Your task to perform on an android device: Go to CNN.com Image 0: 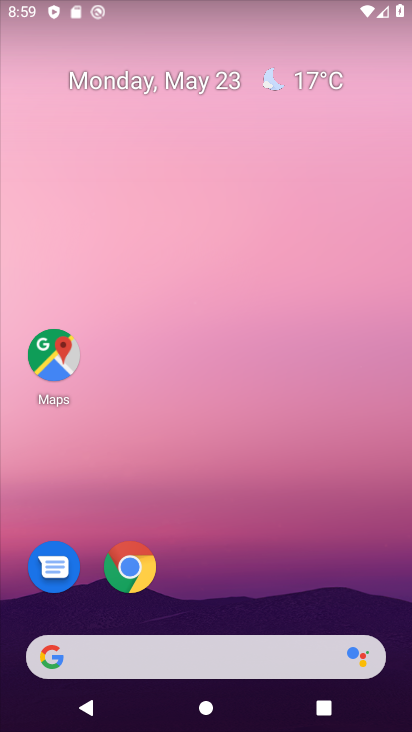
Step 0: click (131, 579)
Your task to perform on an android device: Go to CNN.com Image 1: 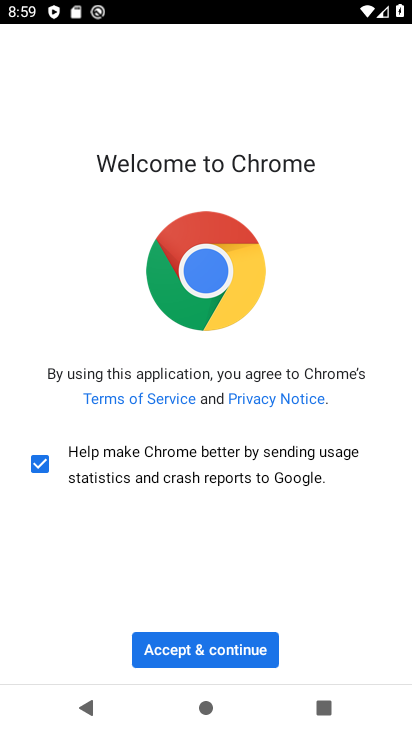
Step 1: click (187, 640)
Your task to perform on an android device: Go to CNN.com Image 2: 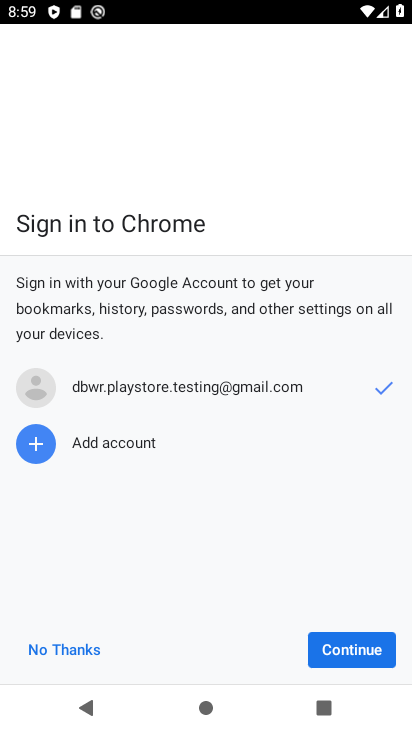
Step 2: click (331, 645)
Your task to perform on an android device: Go to CNN.com Image 3: 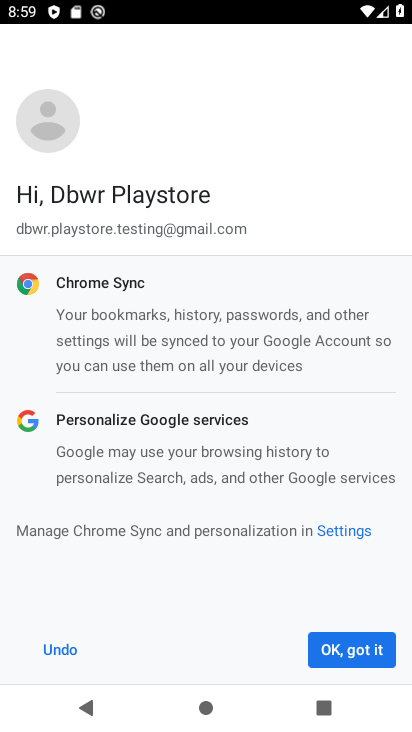
Step 3: click (331, 645)
Your task to perform on an android device: Go to CNN.com Image 4: 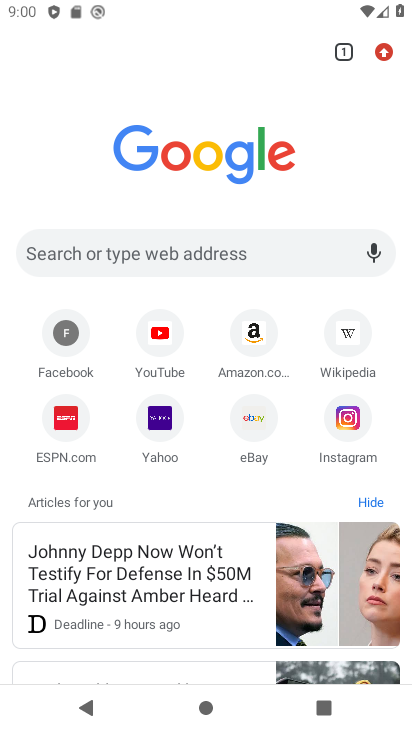
Step 4: click (181, 266)
Your task to perform on an android device: Go to CNN.com Image 5: 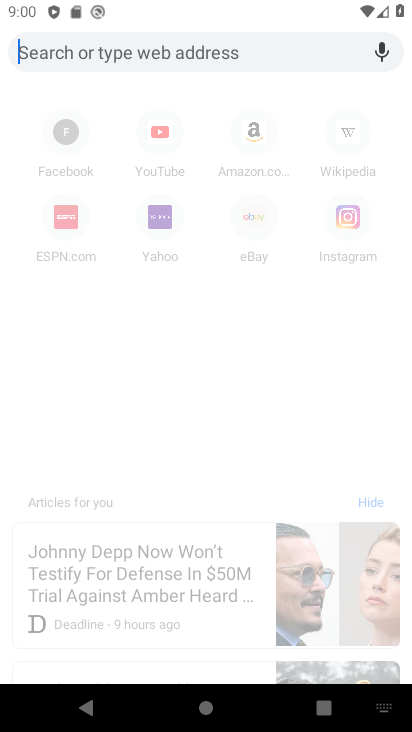
Step 5: type "CNN.com"
Your task to perform on an android device: Go to CNN.com Image 6: 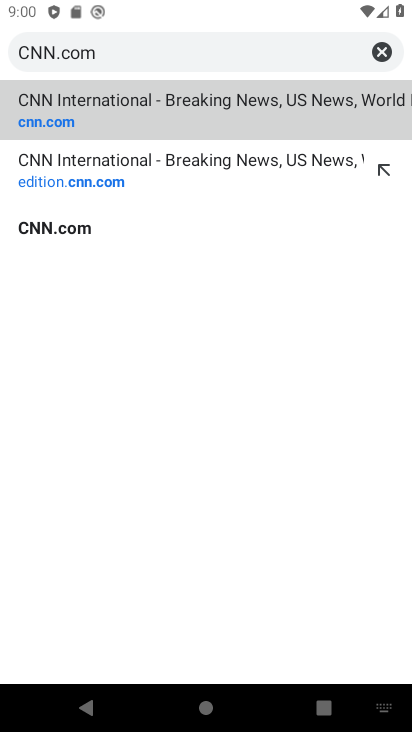
Step 6: click (121, 134)
Your task to perform on an android device: Go to CNN.com Image 7: 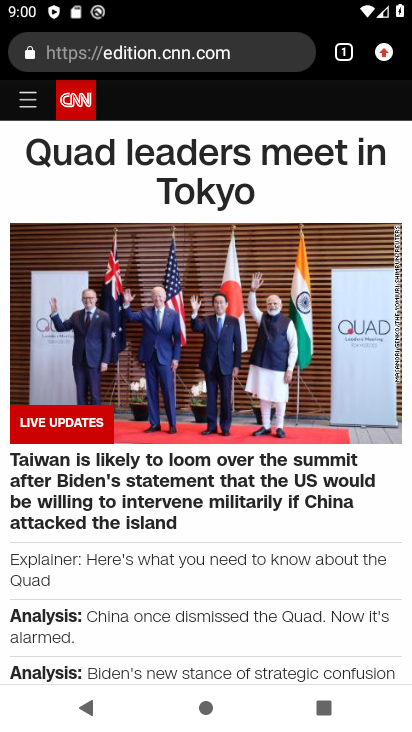
Step 7: task complete